Your task to perform on an android device: Open the calendar app, open the side menu, and click the "Day" option Image 0: 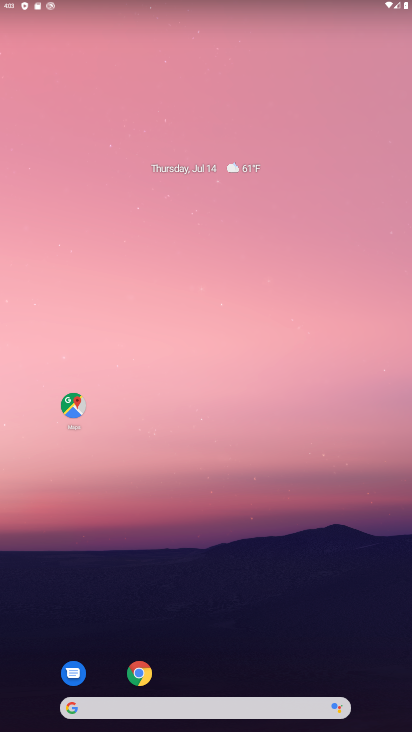
Step 0: drag from (225, 682) to (217, 57)
Your task to perform on an android device: Open the calendar app, open the side menu, and click the "Day" option Image 1: 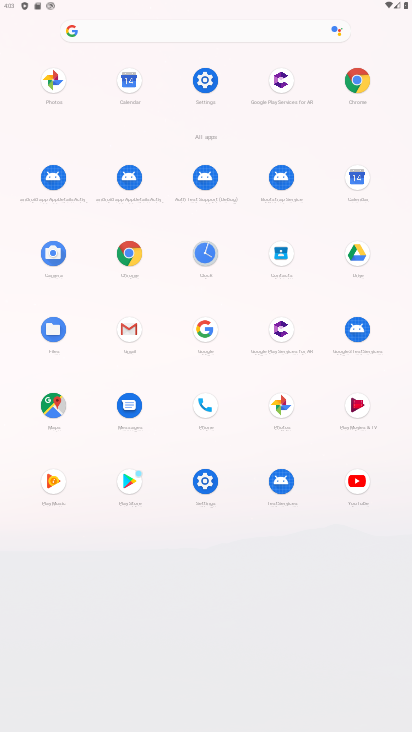
Step 1: click (363, 174)
Your task to perform on an android device: Open the calendar app, open the side menu, and click the "Day" option Image 2: 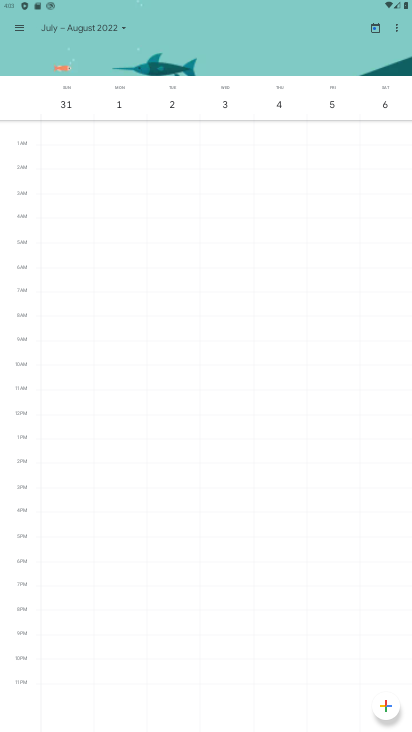
Step 2: click (16, 15)
Your task to perform on an android device: Open the calendar app, open the side menu, and click the "Day" option Image 3: 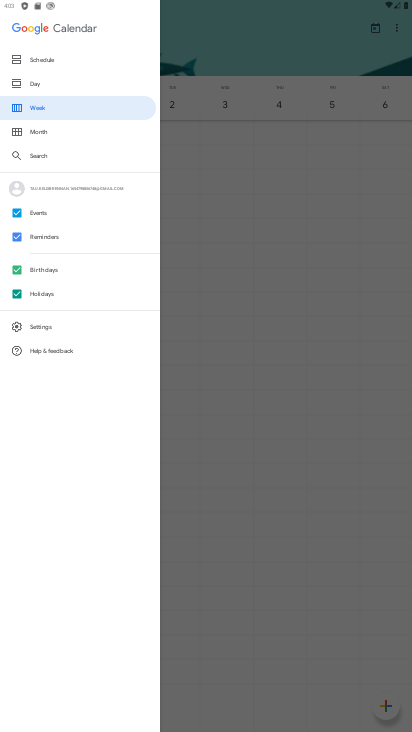
Step 3: click (36, 76)
Your task to perform on an android device: Open the calendar app, open the side menu, and click the "Day" option Image 4: 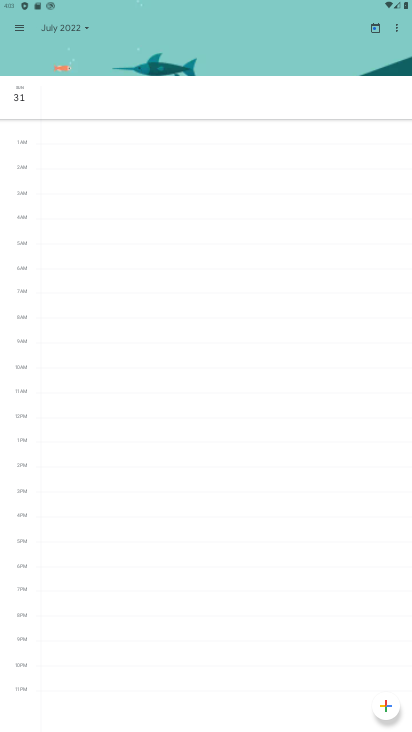
Step 4: task complete